Your task to perform on an android device: refresh tabs in the chrome app Image 0: 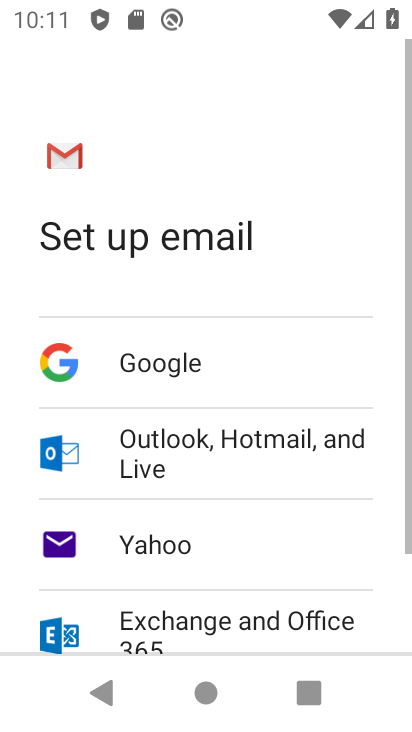
Step 0: press home button
Your task to perform on an android device: refresh tabs in the chrome app Image 1: 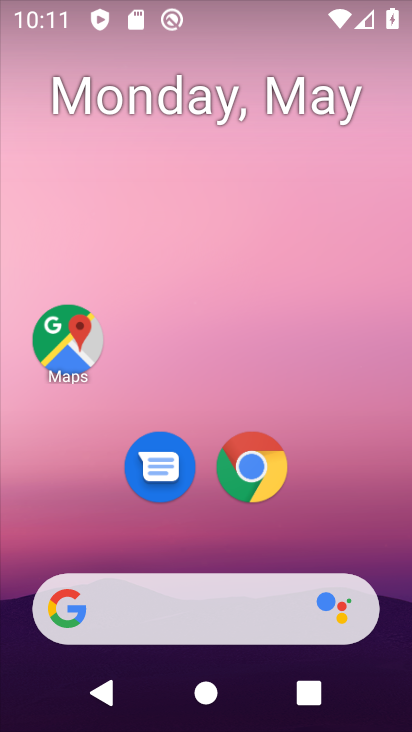
Step 1: drag from (204, 331) to (182, 0)
Your task to perform on an android device: refresh tabs in the chrome app Image 2: 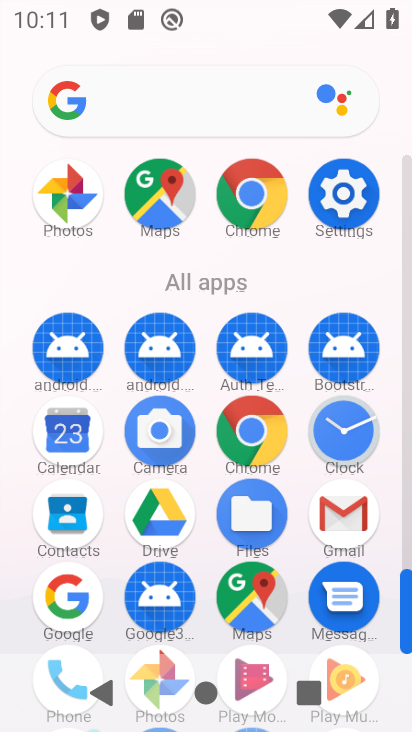
Step 2: click (232, 424)
Your task to perform on an android device: refresh tabs in the chrome app Image 3: 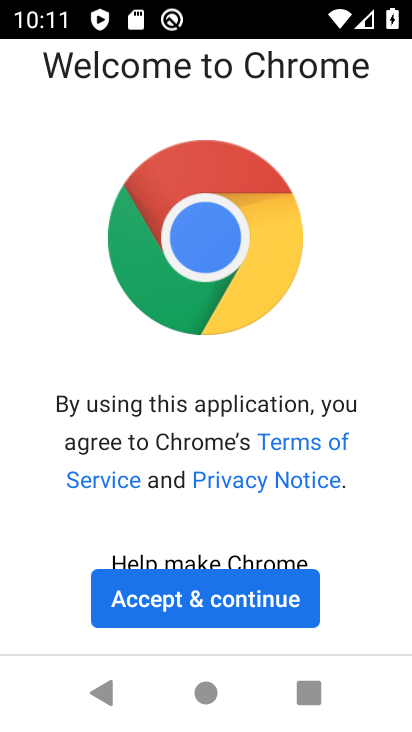
Step 3: click (287, 593)
Your task to perform on an android device: refresh tabs in the chrome app Image 4: 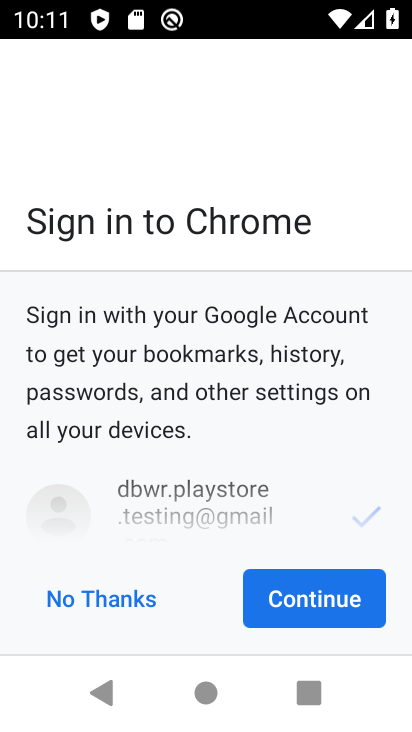
Step 4: click (148, 609)
Your task to perform on an android device: refresh tabs in the chrome app Image 5: 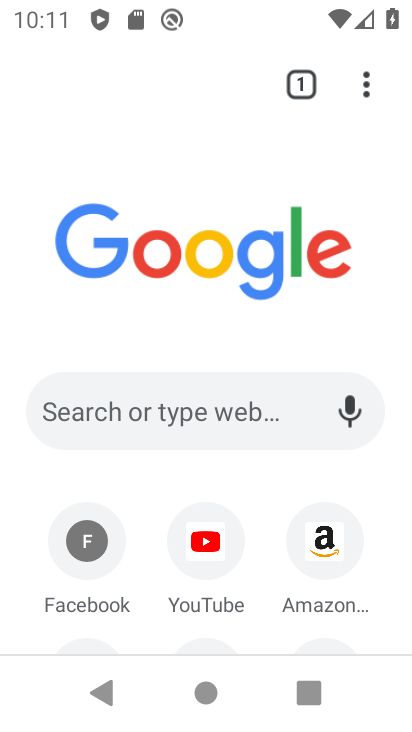
Step 5: click (366, 64)
Your task to perform on an android device: refresh tabs in the chrome app Image 6: 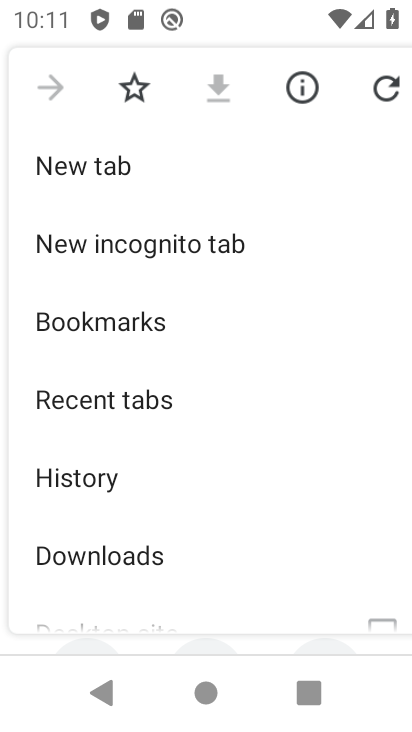
Step 6: click (373, 97)
Your task to perform on an android device: refresh tabs in the chrome app Image 7: 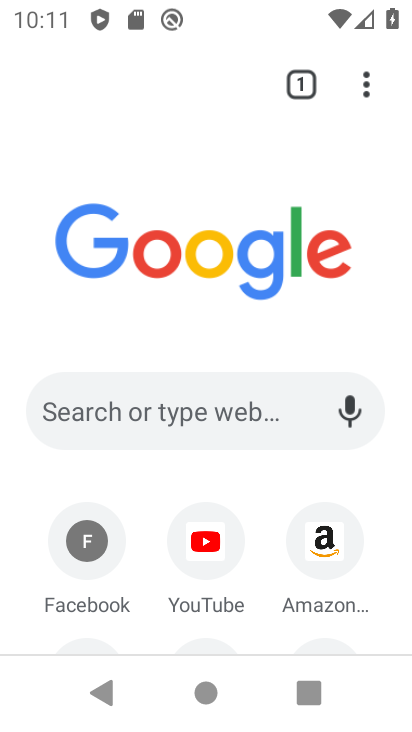
Step 7: task complete